Your task to perform on an android device: What is the recent news? Image 0: 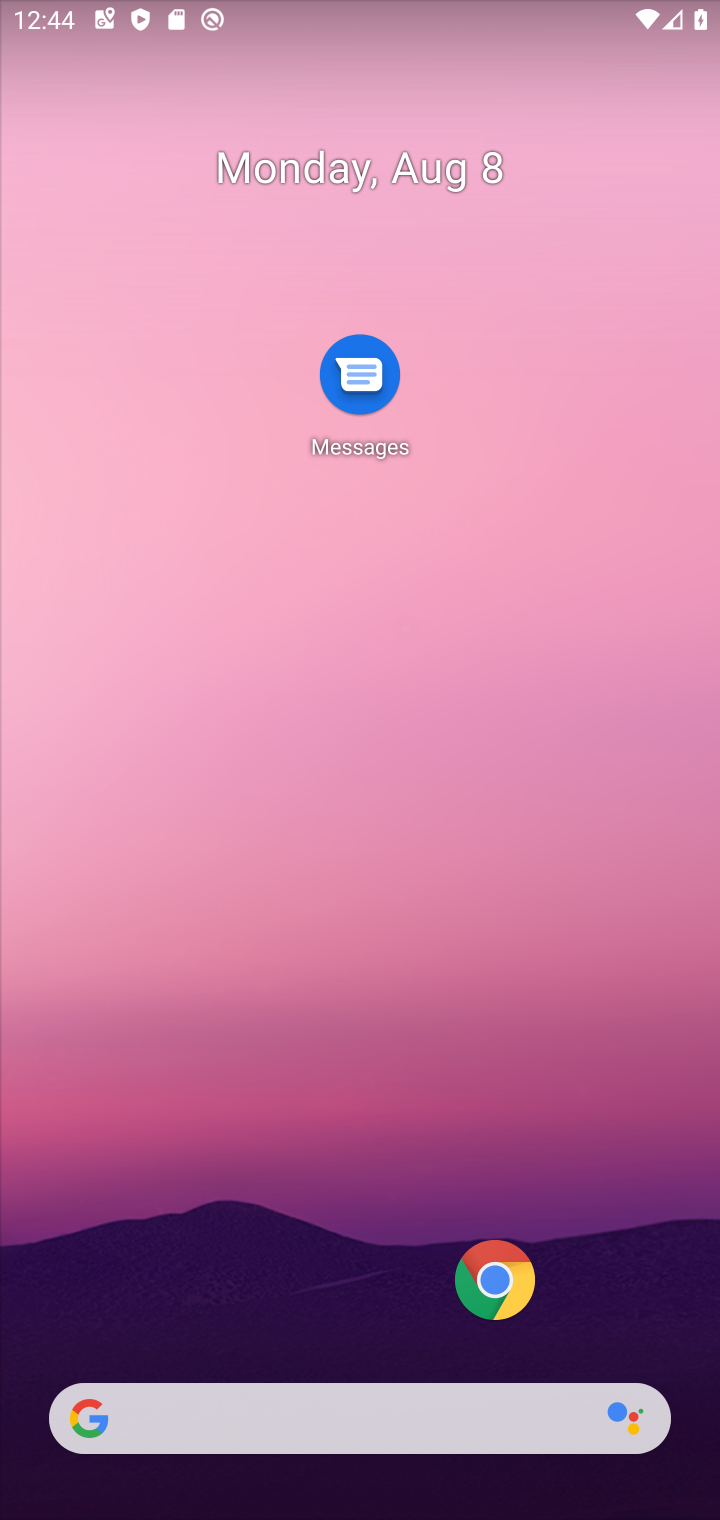
Step 0: click (236, 1406)
Your task to perform on an android device: What is the recent news? Image 1: 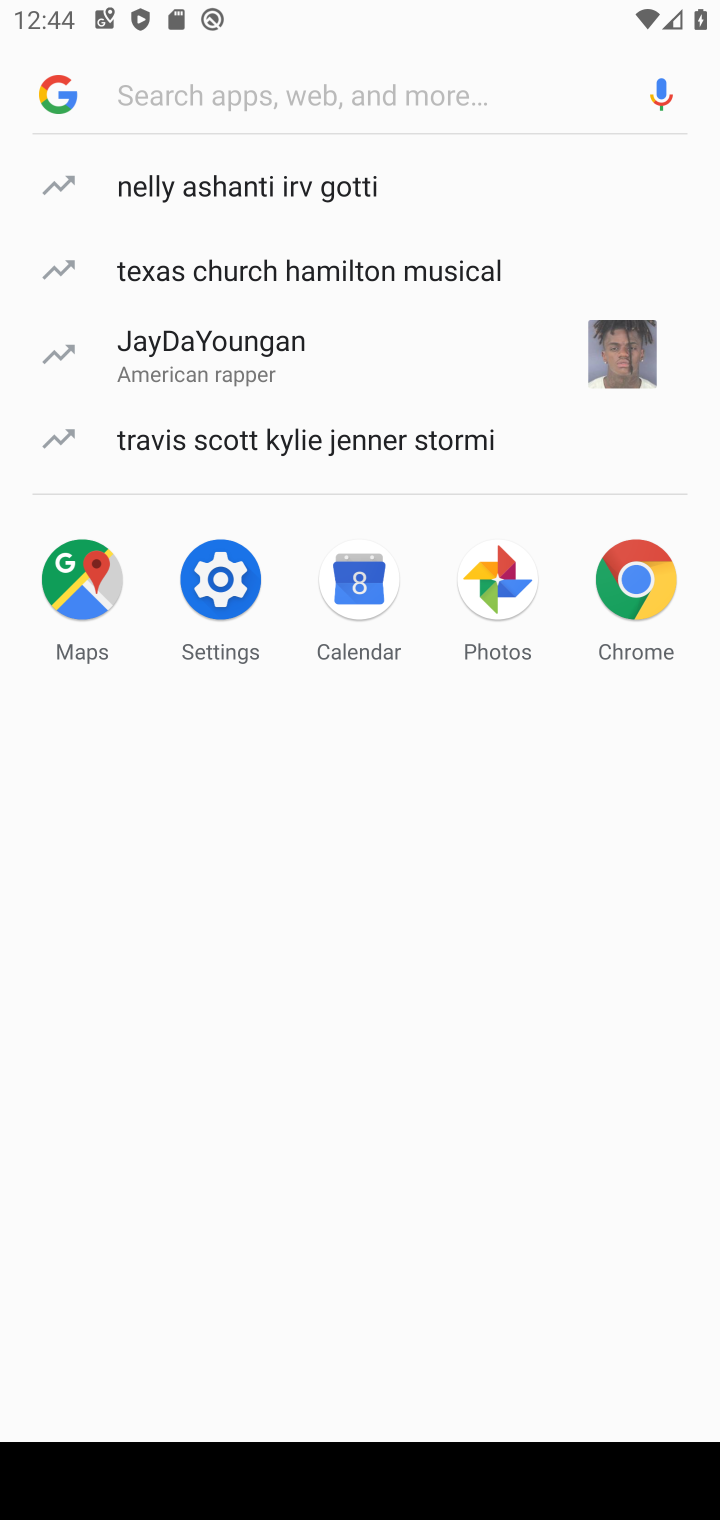
Step 1: click (220, 63)
Your task to perform on an android device: What is the recent news? Image 2: 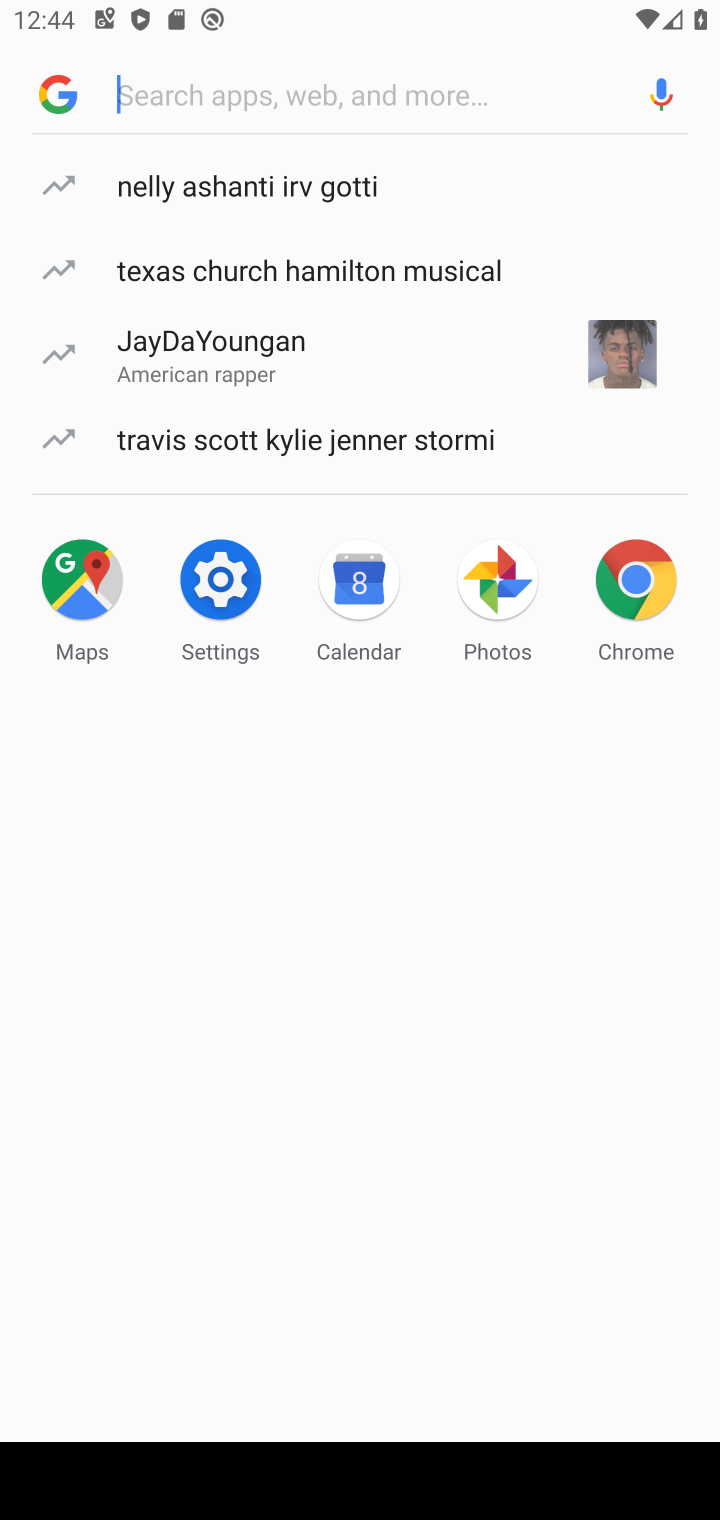
Step 2: type "recent news"
Your task to perform on an android device: What is the recent news? Image 3: 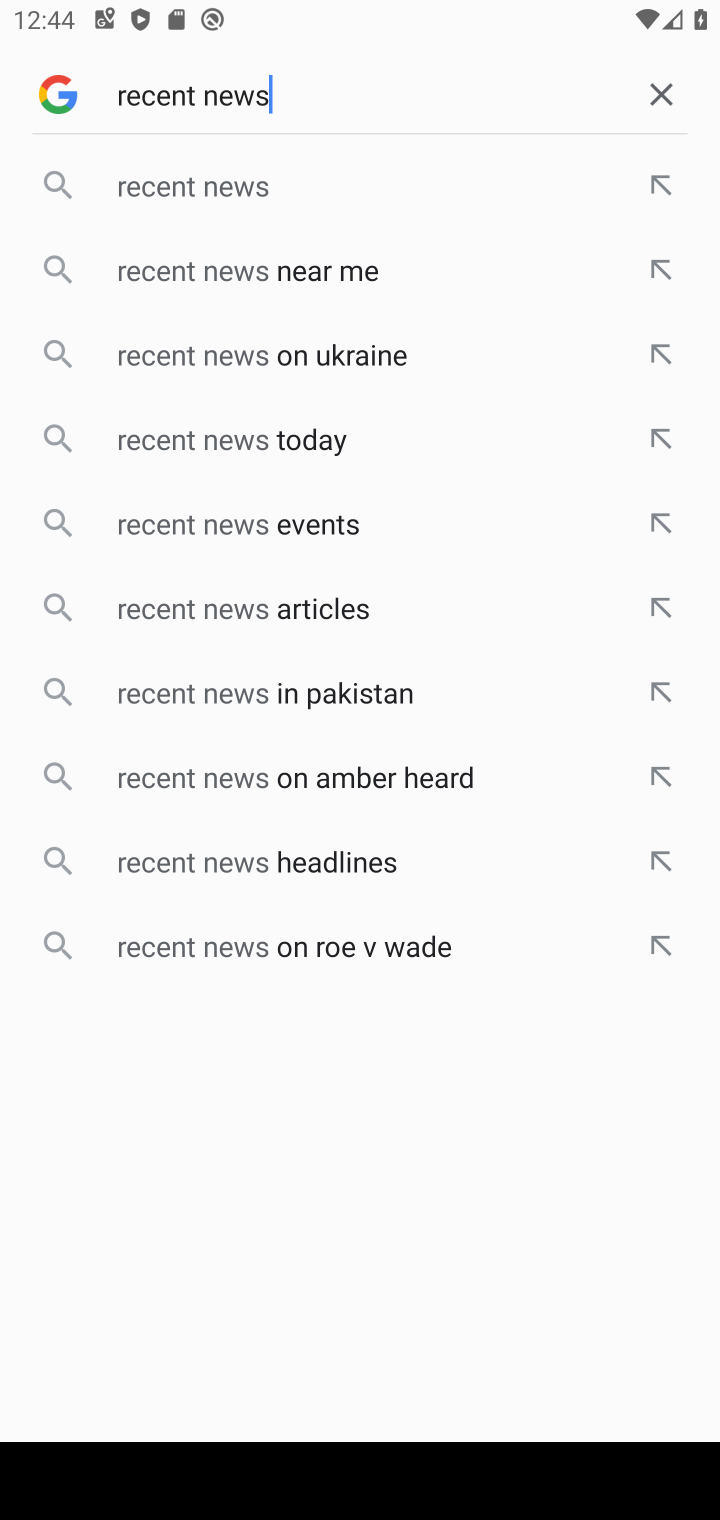
Step 3: click (215, 173)
Your task to perform on an android device: What is the recent news? Image 4: 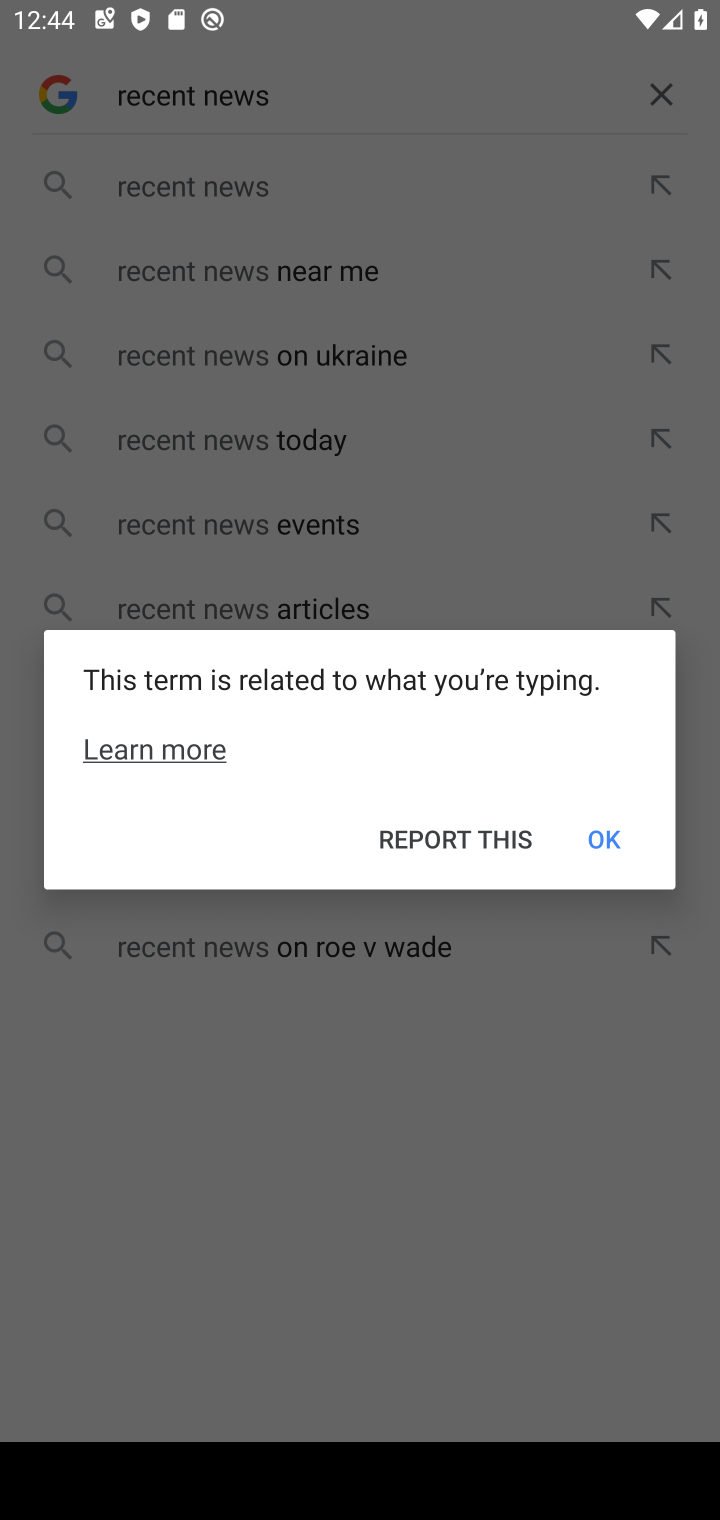
Step 4: click (576, 845)
Your task to perform on an android device: What is the recent news? Image 5: 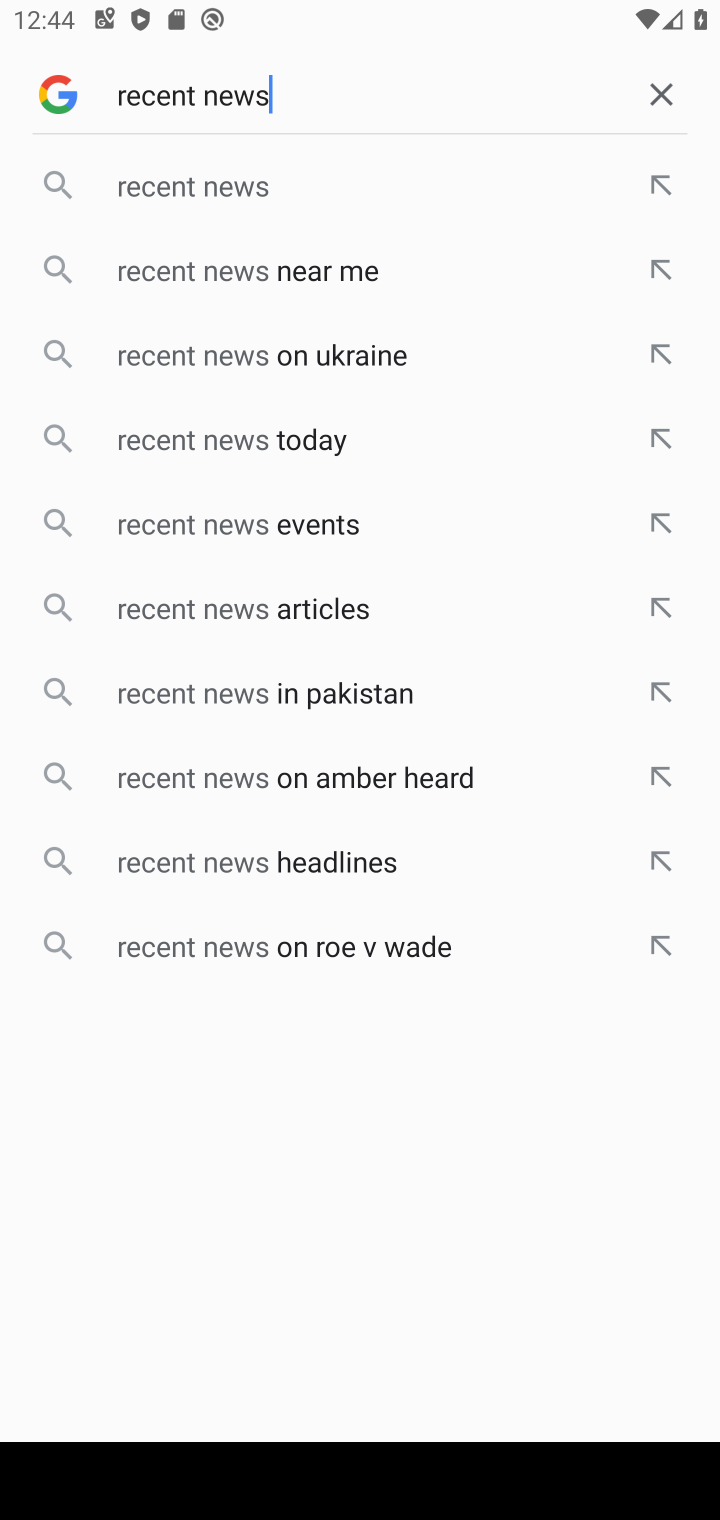
Step 5: click (212, 161)
Your task to perform on an android device: What is the recent news? Image 6: 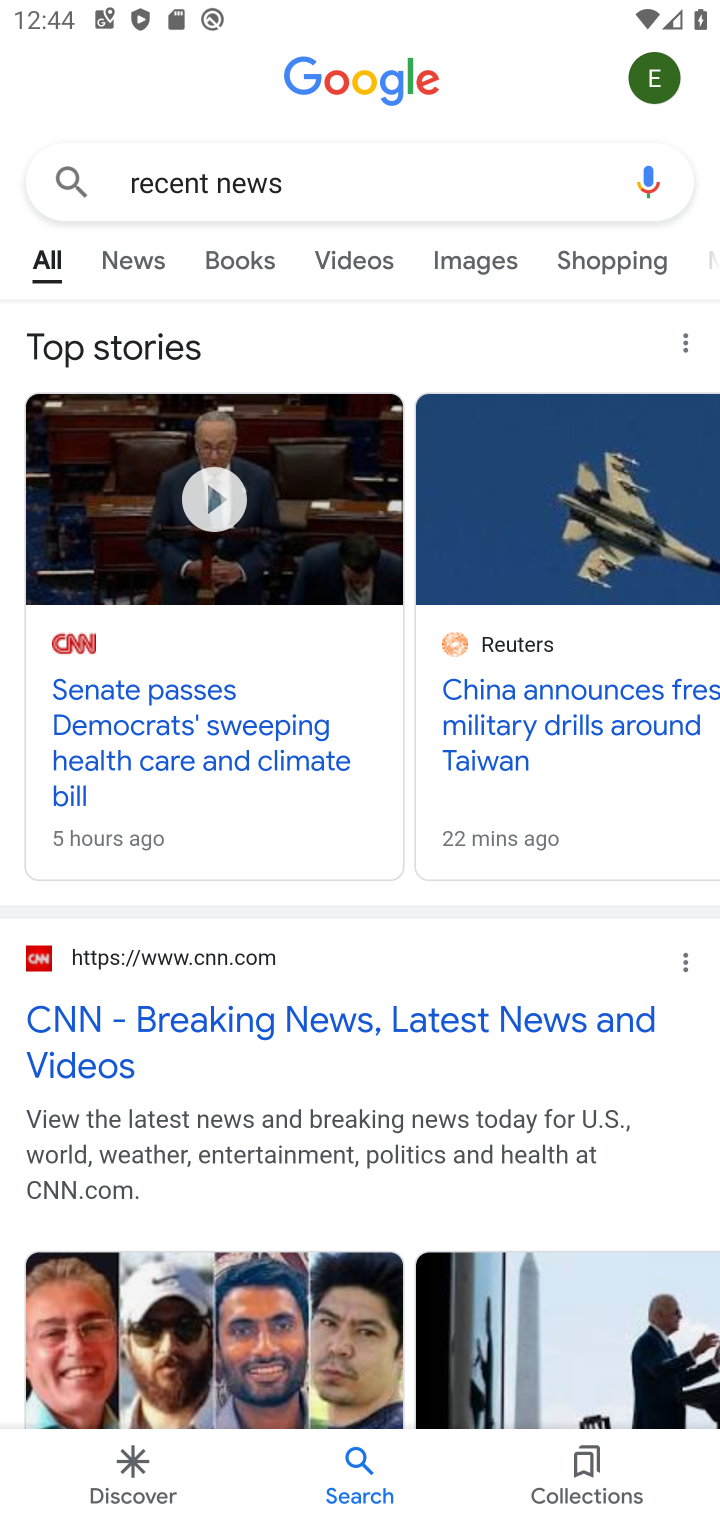
Step 6: task complete